Your task to perform on an android device: What's on my calendar today? Image 0: 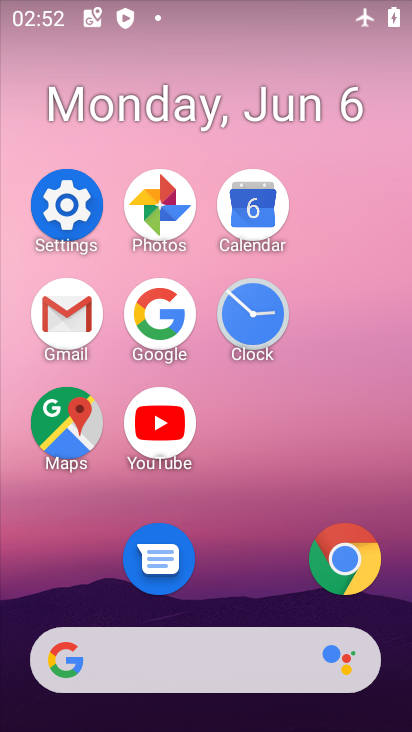
Step 0: click (251, 219)
Your task to perform on an android device: What's on my calendar today? Image 1: 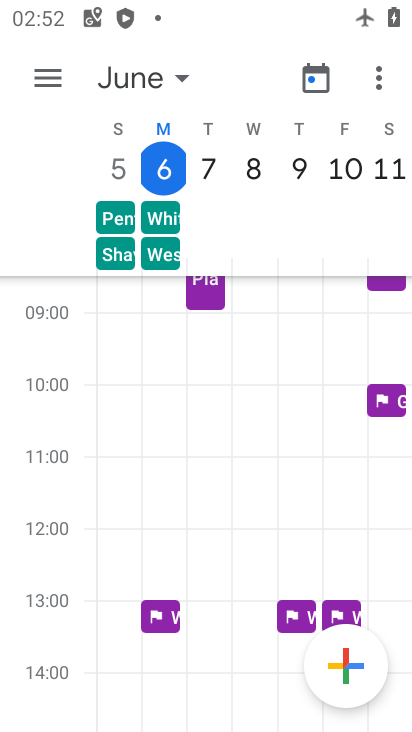
Step 1: task complete